Your task to perform on an android device: Go to Maps Image 0: 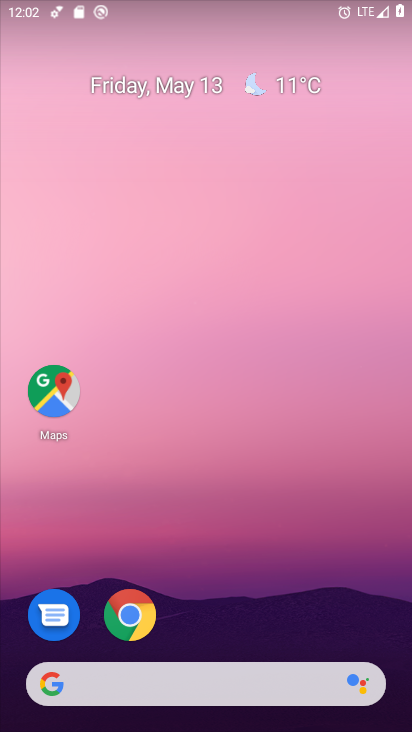
Step 0: click (54, 391)
Your task to perform on an android device: Go to Maps Image 1: 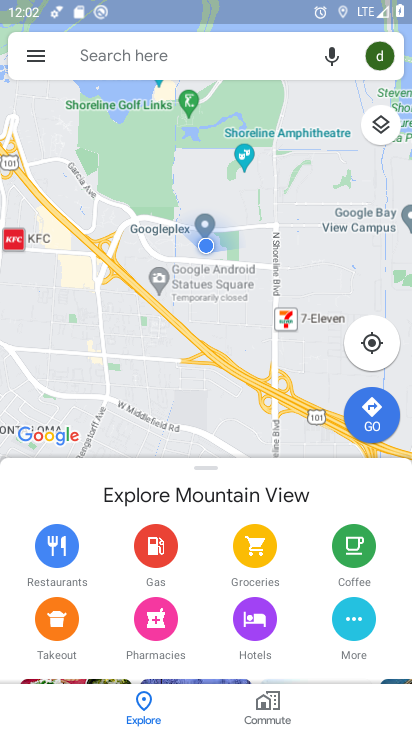
Step 1: task complete